Your task to perform on an android device: Turn on the flashlight Image 0: 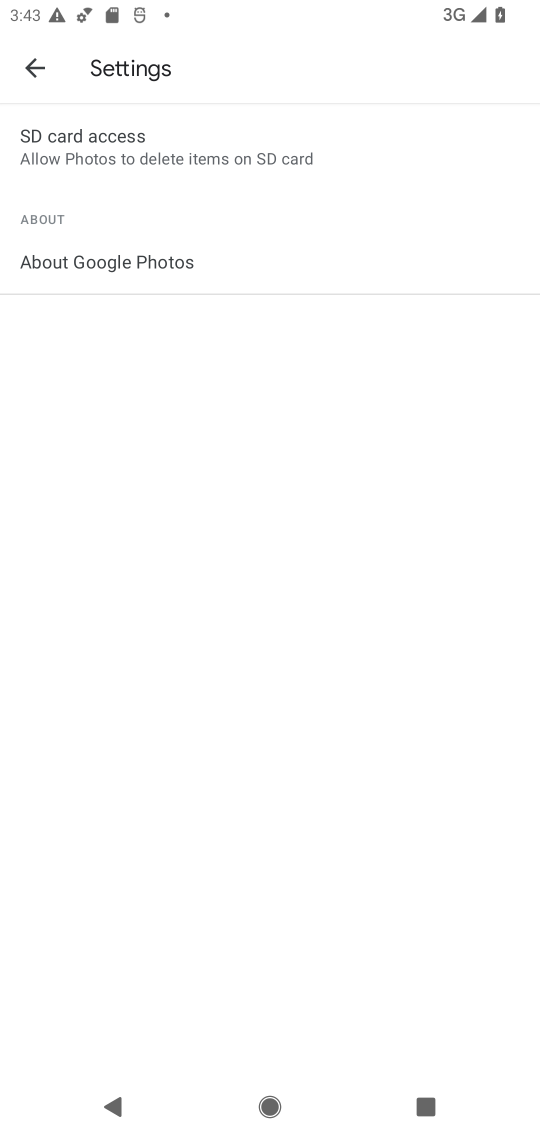
Step 0: press home button
Your task to perform on an android device: Turn on the flashlight Image 1: 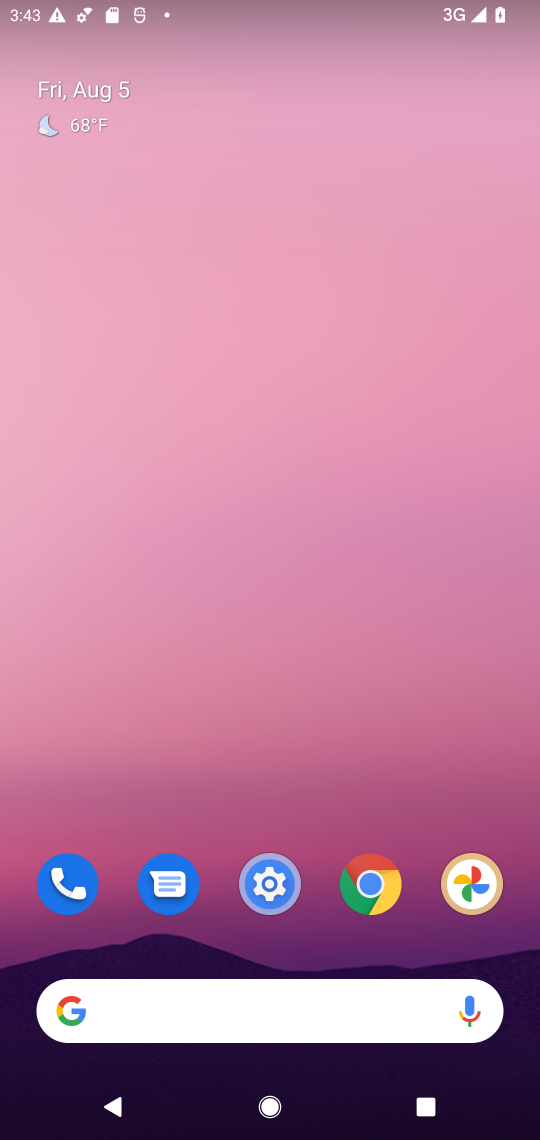
Step 1: drag from (235, 3) to (286, 775)
Your task to perform on an android device: Turn on the flashlight Image 2: 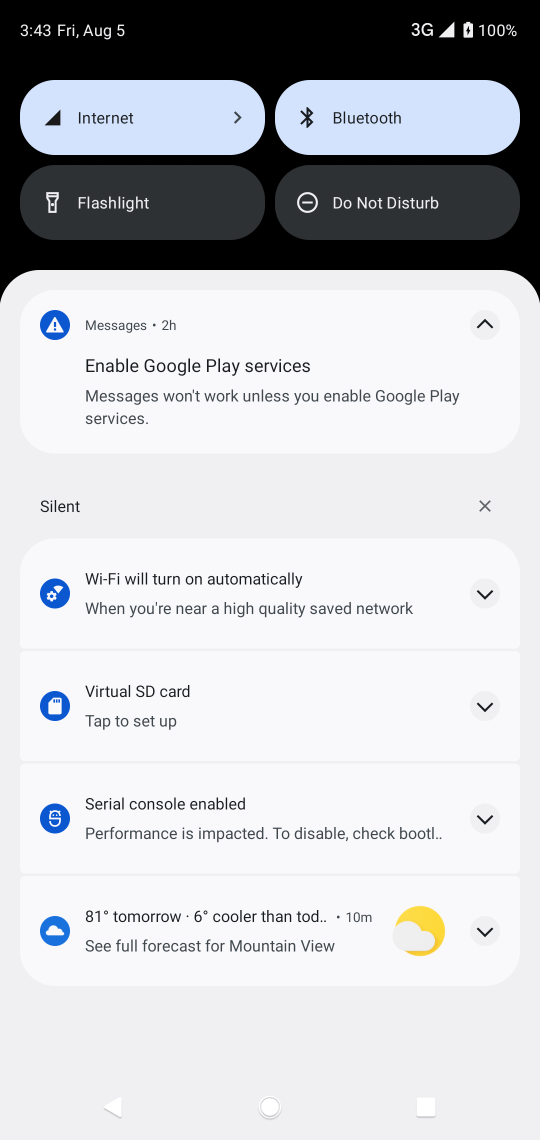
Step 2: click (130, 212)
Your task to perform on an android device: Turn on the flashlight Image 3: 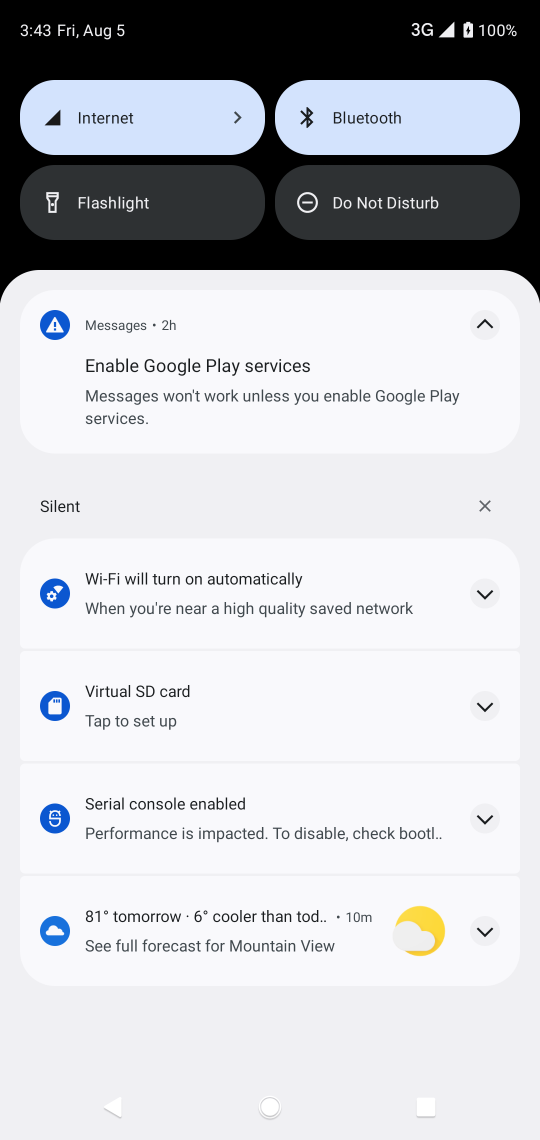
Step 3: drag from (270, 250) to (218, 958)
Your task to perform on an android device: Turn on the flashlight Image 4: 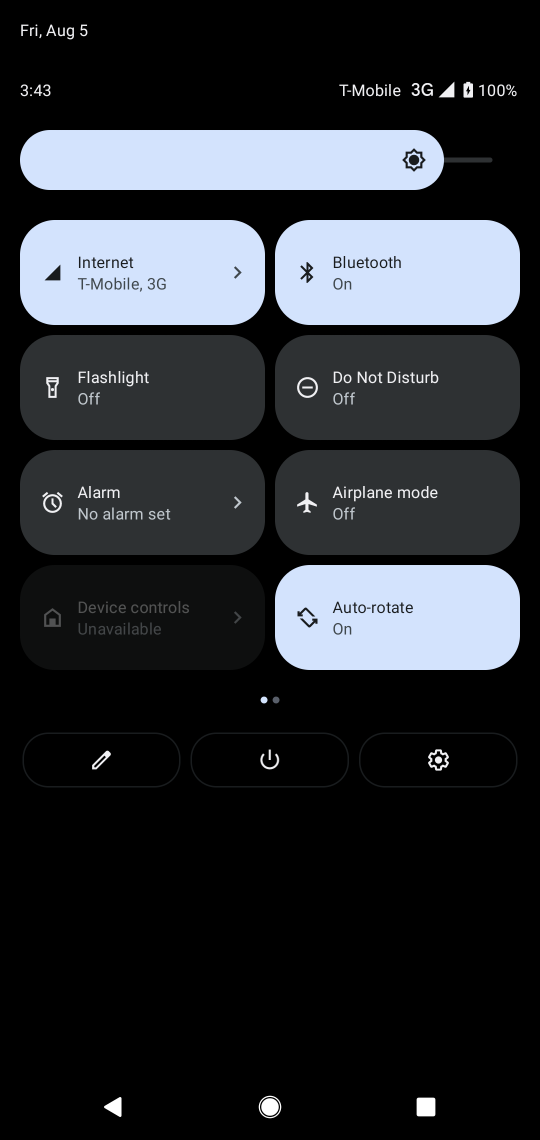
Step 4: click (129, 385)
Your task to perform on an android device: Turn on the flashlight Image 5: 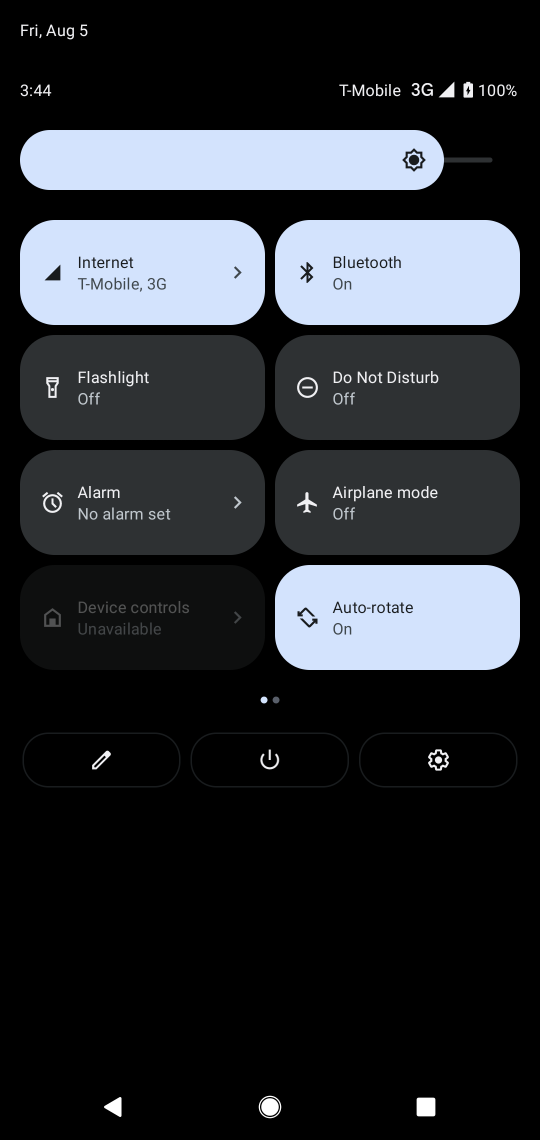
Step 5: click (148, 410)
Your task to perform on an android device: Turn on the flashlight Image 6: 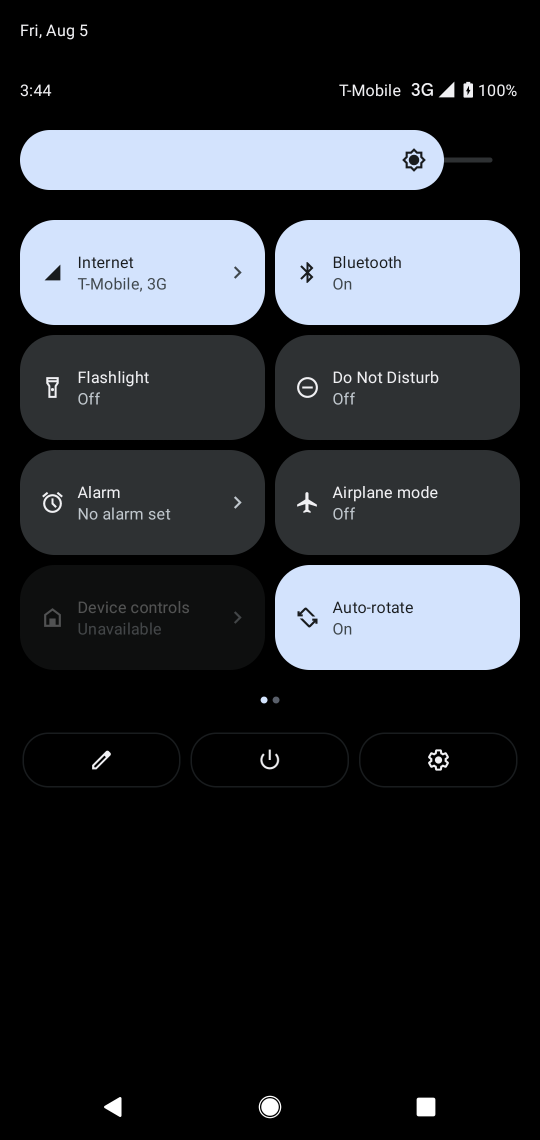
Step 6: task complete